Your task to perform on an android device: Find coffee shops on Maps Image 0: 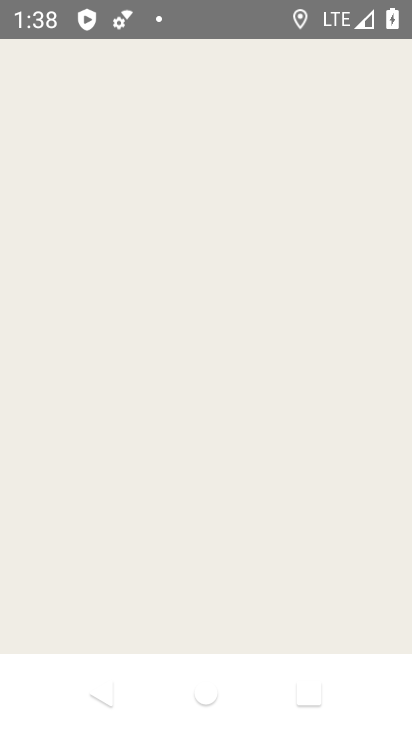
Step 0: drag from (377, 437) to (375, 300)
Your task to perform on an android device: Find coffee shops on Maps Image 1: 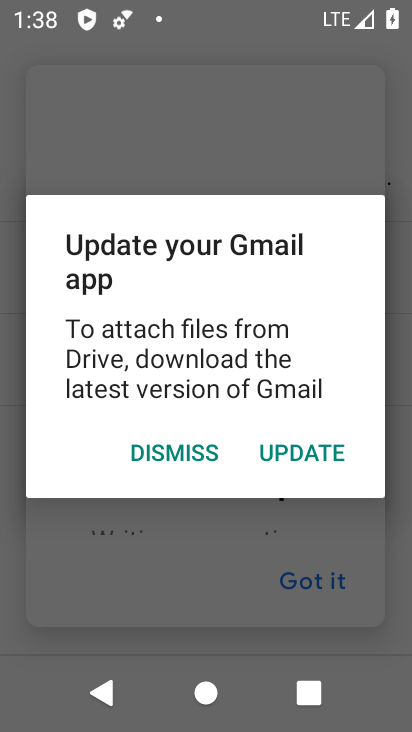
Step 1: press home button
Your task to perform on an android device: Find coffee shops on Maps Image 2: 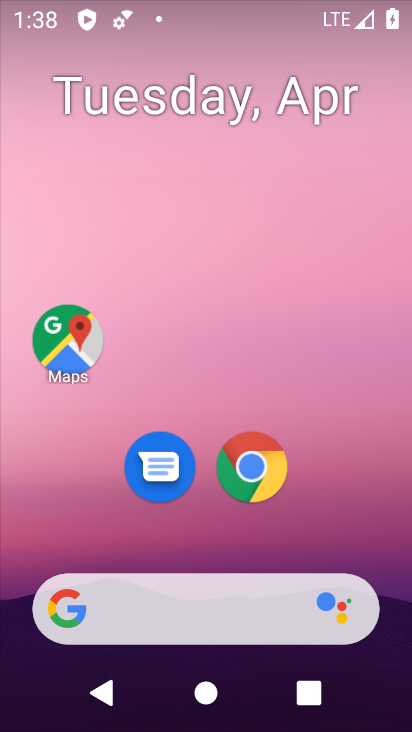
Step 2: drag from (377, 540) to (391, 191)
Your task to perform on an android device: Find coffee shops on Maps Image 3: 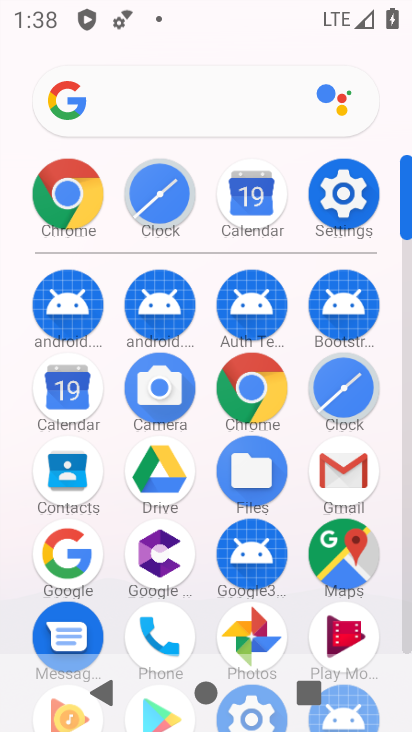
Step 3: click (335, 557)
Your task to perform on an android device: Find coffee shops on Maps Image 4: 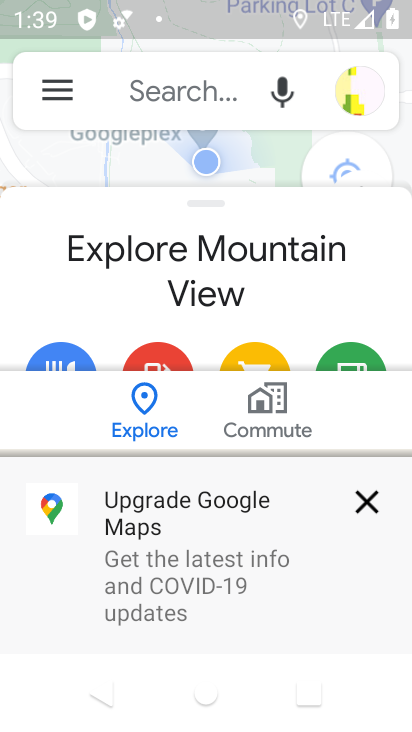
Step 4: click (144, 72)
Your task to perform on an android device: Find coffee shops on Maps Image 5: 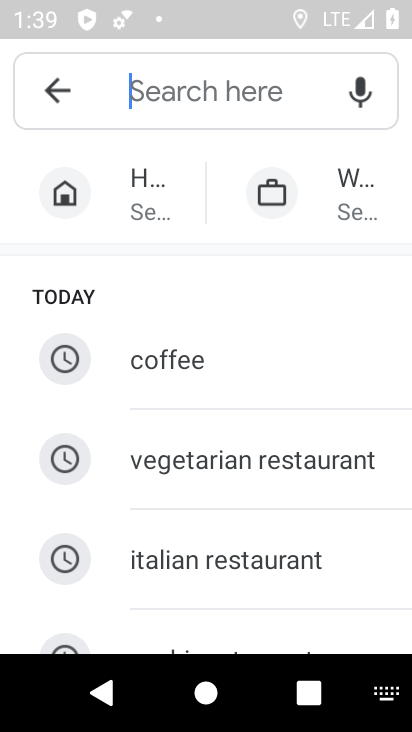
Step 5: type "coffee"
Your task to perform on an android device: Find coffee shops on Maps Image 6: 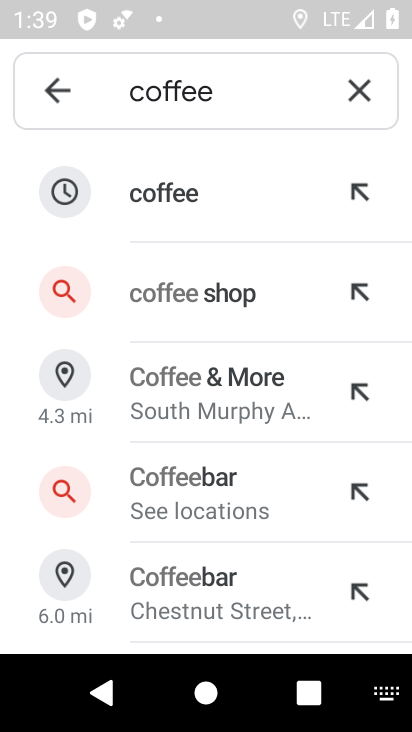
Step 6: click (164, 190)
Your task to perform on an android device: Find coffee shops on Maps Image 7: 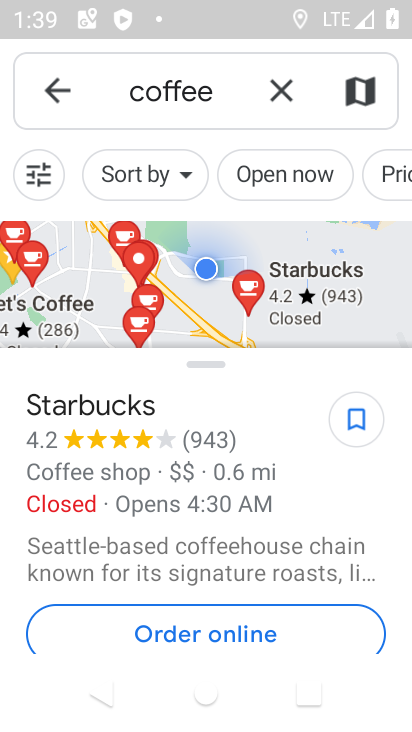
Step 7: task complete